Your task to perform on an android device: turn on wifi Image 0: 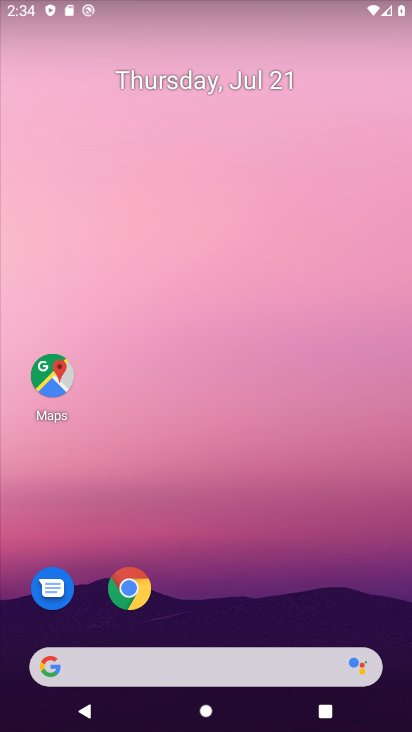
Step 0: drag from (223, 312) to (209, 244)
Your task to perform on an android device: turn on wifi Image 1: 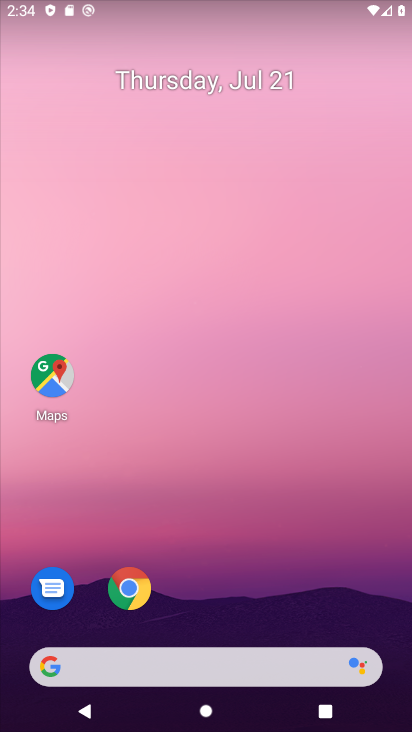
Step 1: drag from (231, 534) to (217, 4)
Your task to perform on an android device: turn on wifi Image 2: 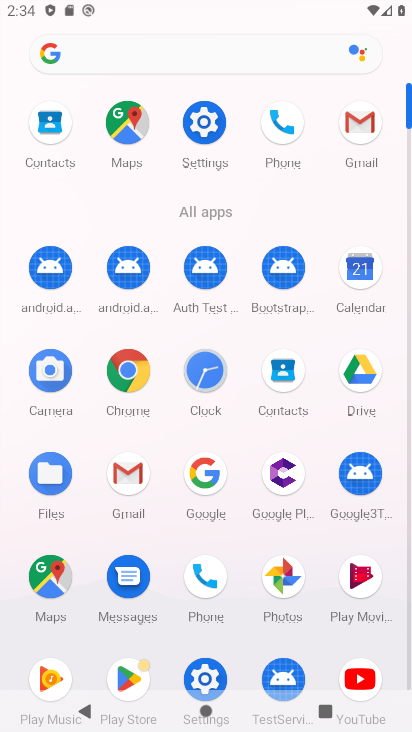
Step 2: click (207, 121)
Your task to perform on an android device: turn on wifi Image 3: 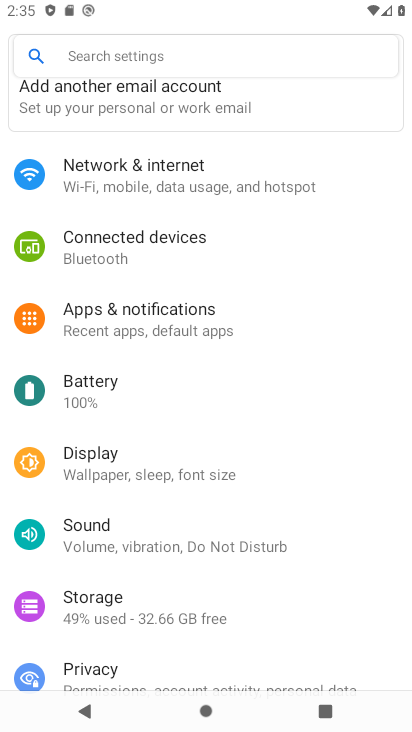
Step 3: click (146, 160)
Your task to perform on an android device: turn on wifi Image 4: 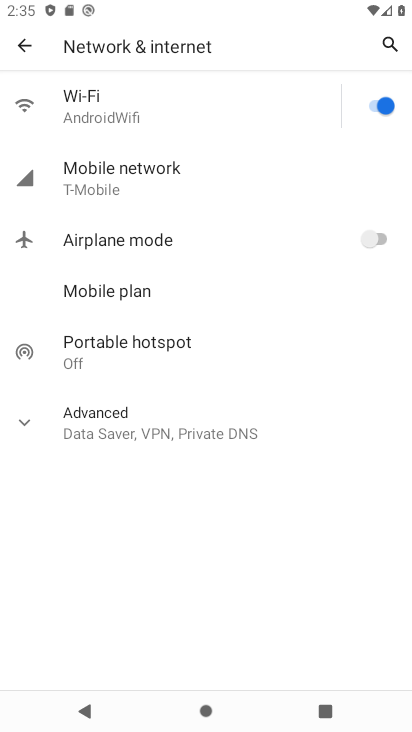
Step 4: task complete